Your task to perform on an android device: refresh tabs in the chrome app Image 0: 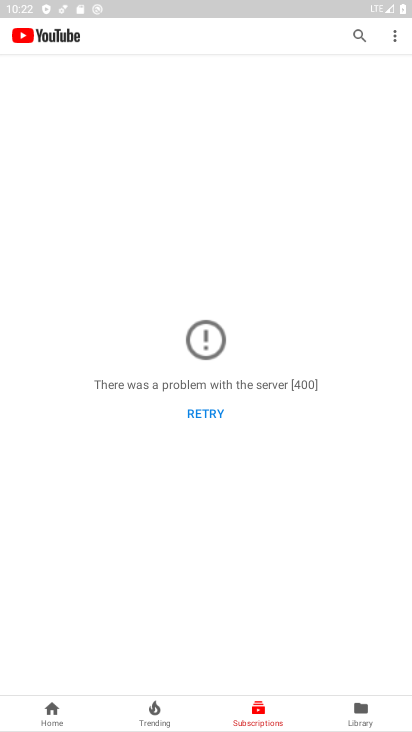
Step 0: press home button
Your task to perform on an android device: refresh tabs in the chrome app Image 1: 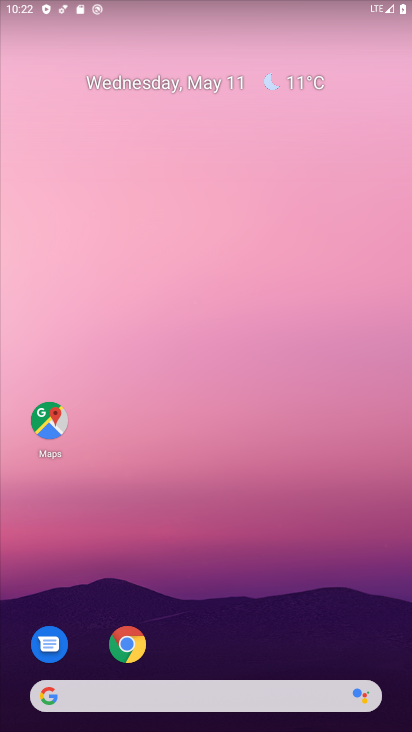
Step 1: click (131, 641)
Your task to perform on an android device: refresh tabs in the chrome app Image 2: 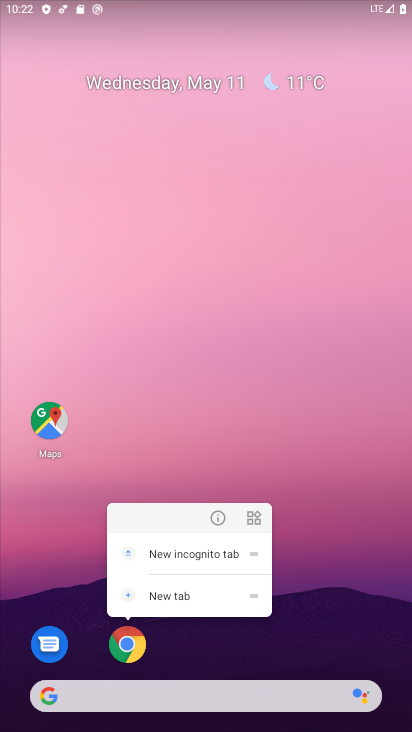
Step 2: click (125, 637)
Your task to perform on an android device: refresh tabs in the chrome app Image 3: 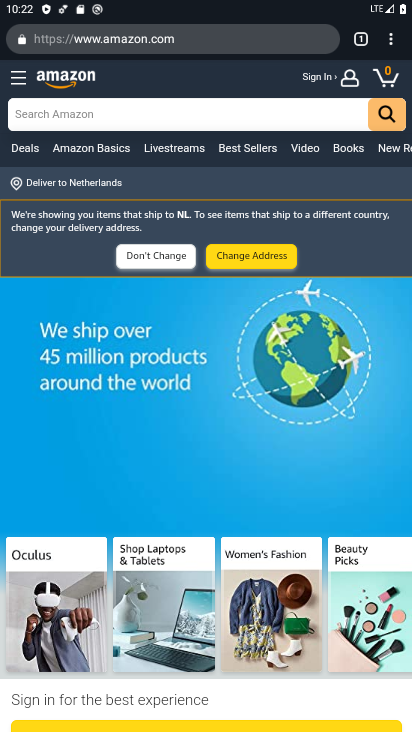
Step 3: click (392, 38)
Your task to perform on an android device: refresh tabs in the chrome app Image 4: 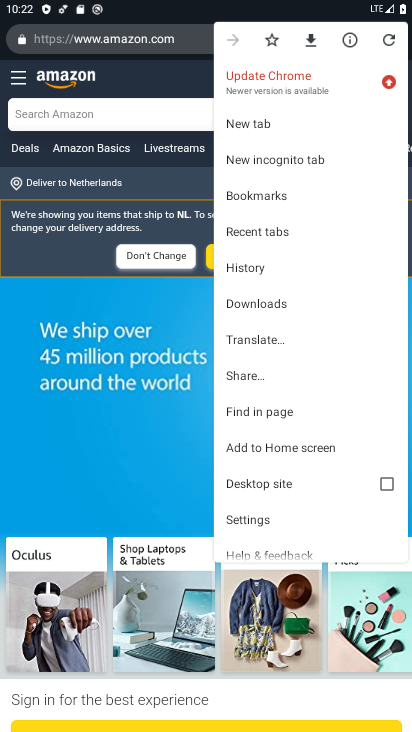
Step 4: click (386, 39)
Your task to perform on an android device: refresh tabs in the chrome app Image 5: 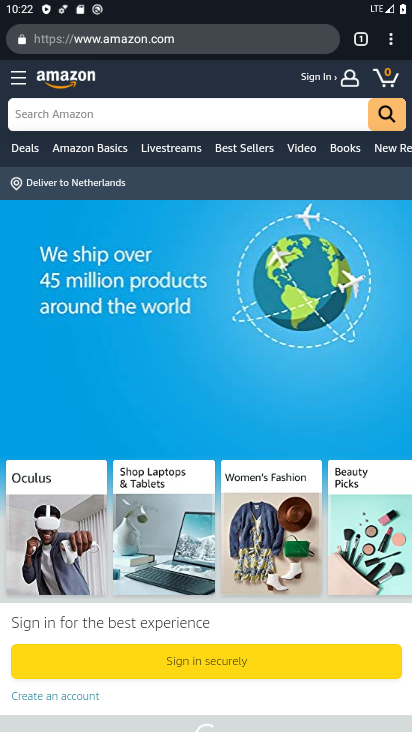
Step 5: task complete